Your task to perform on an android device: check battery use Image 0: 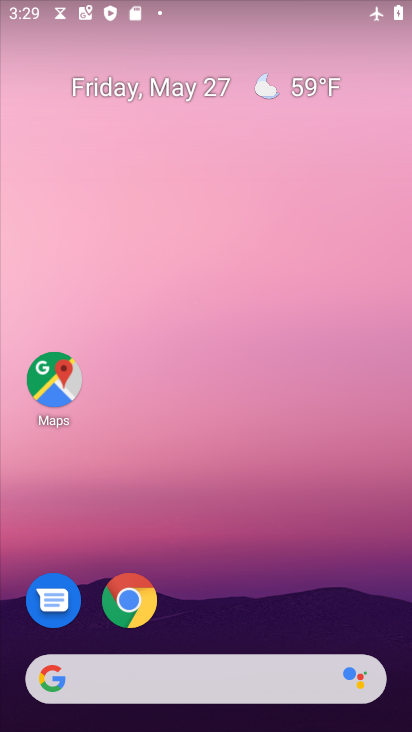
Step 0: drag from (219, 594) to (183, 62)
Your task to perform on an android device: check battery use Image 1: 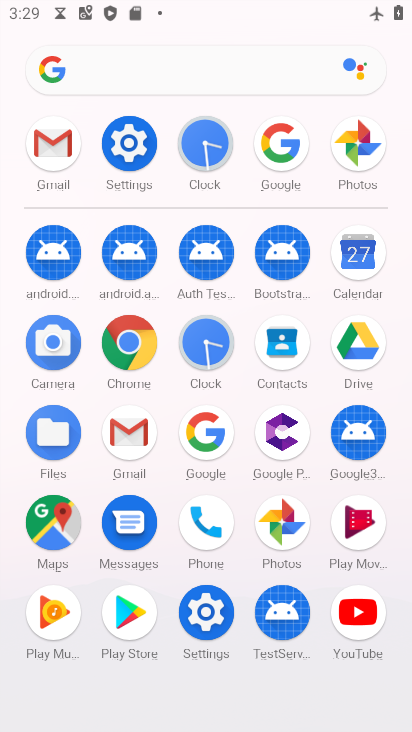
Step 1: click (126, 141)
Your task to perform on an android device: check battery use Image 2: 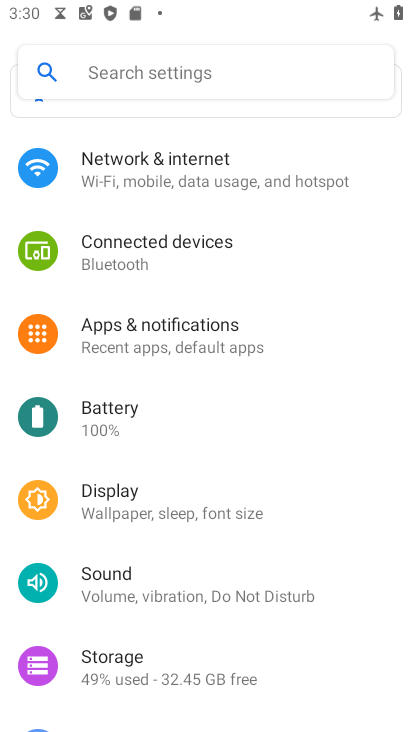
Step 2: click (106, 413)
Your task to perform on an android device: check battery use Image 3: 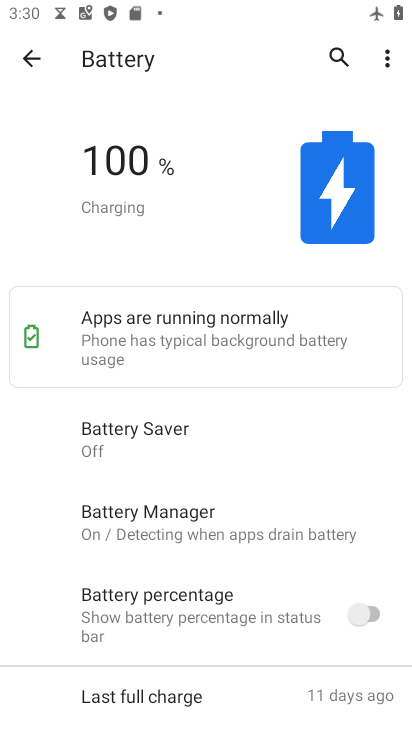
Step 3: click (385, 59)
Your task to perform on an android device: check battery use Image 4: 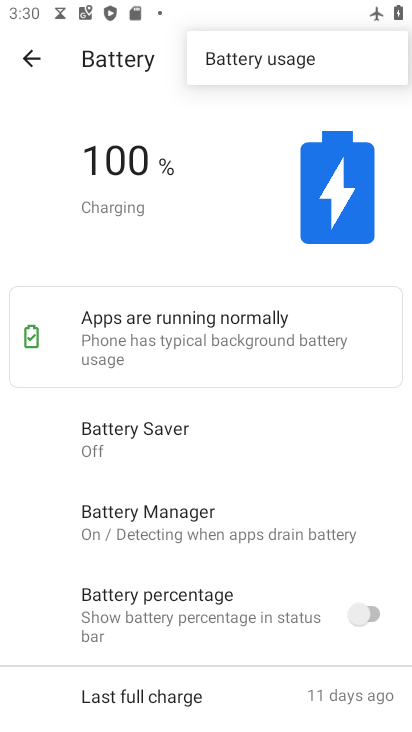
Step 4: click (295, 64)
Your task to perform on an android device: check battery use Image 5: 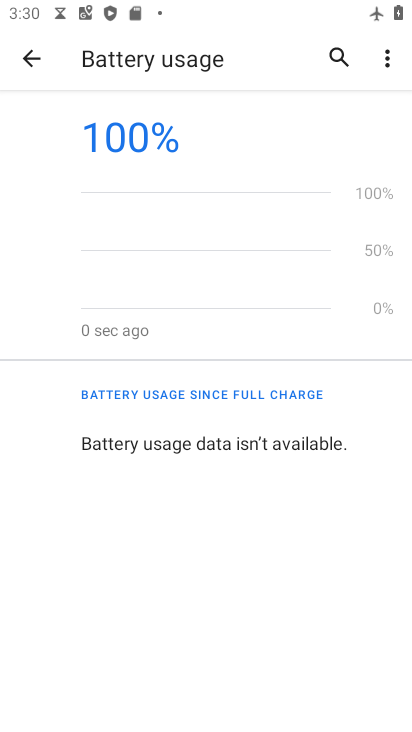
Step 5: task complete